Your task to perform on an android device: See recent photos Image 0: 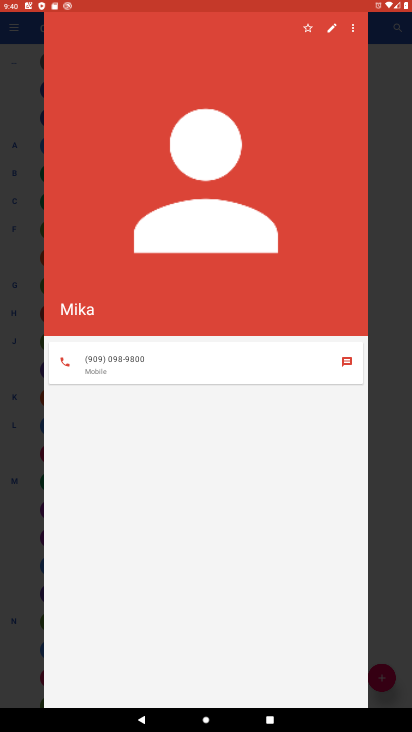
Step 0: press home button
Your task to perform on an android device: See recent photos Image 1: 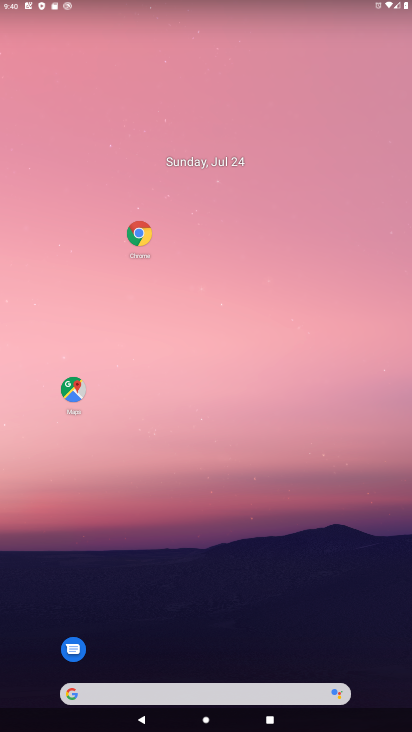
Step 1: drag from (173, 543) to (193, 131)
Your task to perform on an android device: See recent photos Image 2: 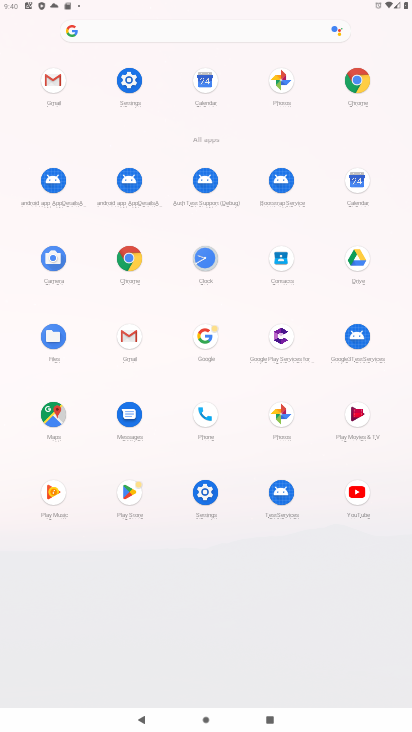
Step 2: click (287, 425)
Your task to perform on an android device: See recent photos Image 3: 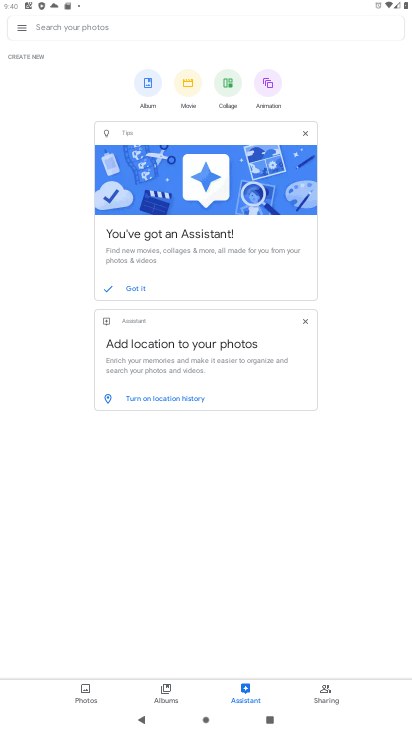
Step 3: click (90, 689)
Your task to perform on an android device: See recent photos Image 4: 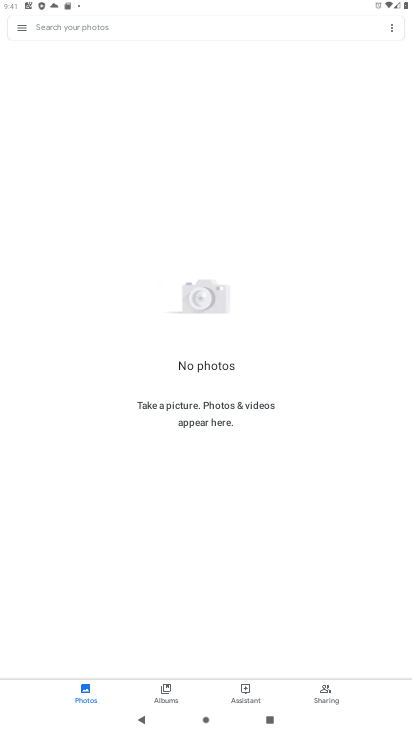
Step 4: task complete